Your task to perform on an android device: Open battery settings Image 0: 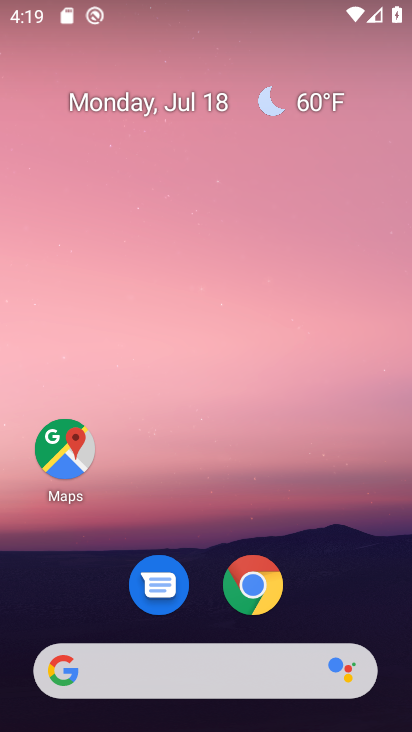
Step 0: drag from (340, 577) to (361, 47)
Your task to perform on an android device: Open battery settings Image 1: 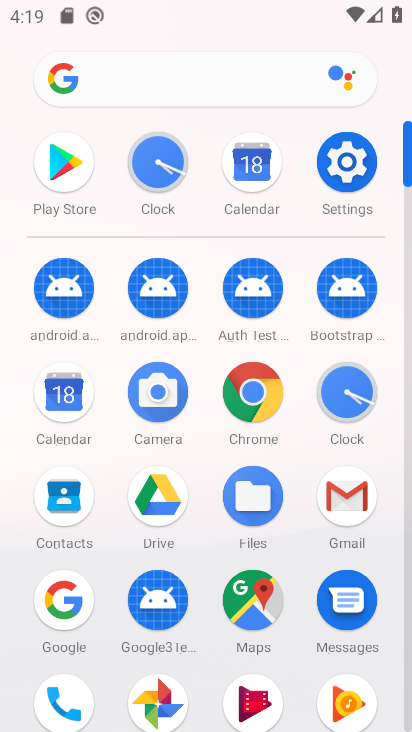
Step 1: click (355, 175)
Your task to perform on an android device: Open battery settings Image 2: 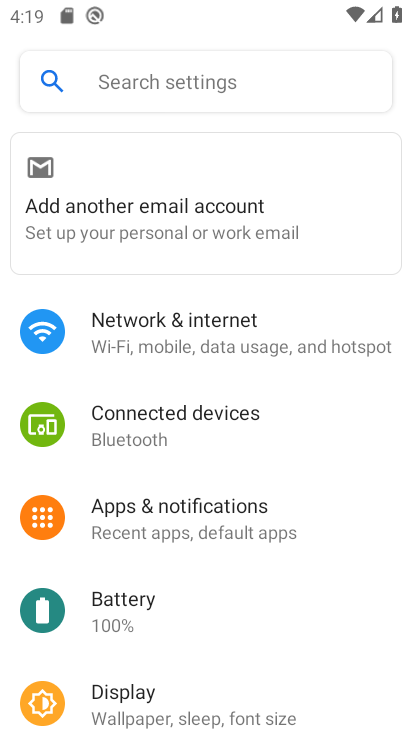
Step 2: click (128, 598)
Your task to perform on an android device: Open battery settings Image 3: 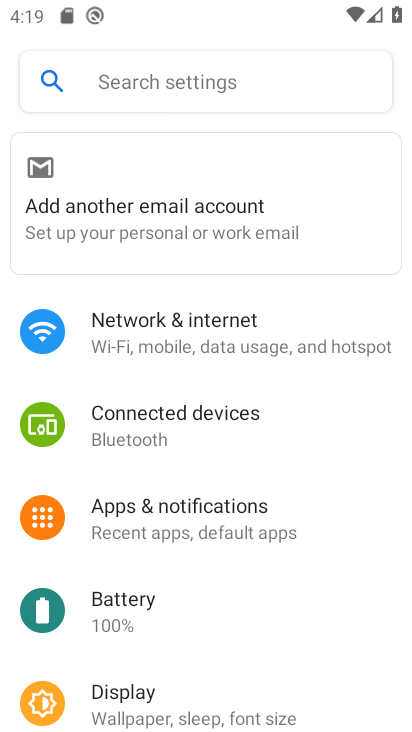
Step 3: click (131, 612)
Your task to perform on an android device: Open battery settings Image 4: 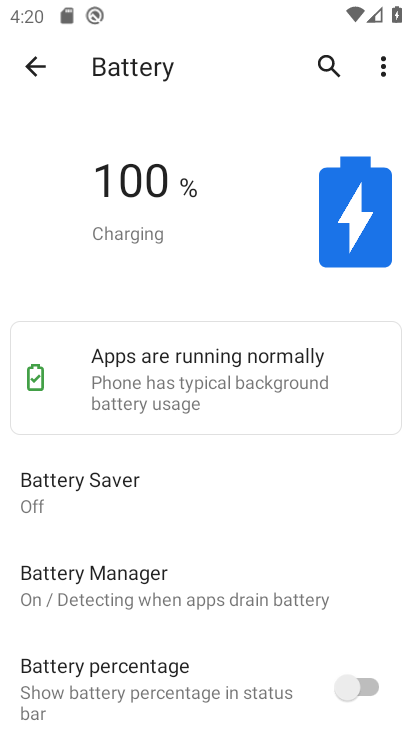
Step 4: task complete